Your task to perform on an android device: Add alienware aurora to the cart on walmart, then select checkout. Image 0: 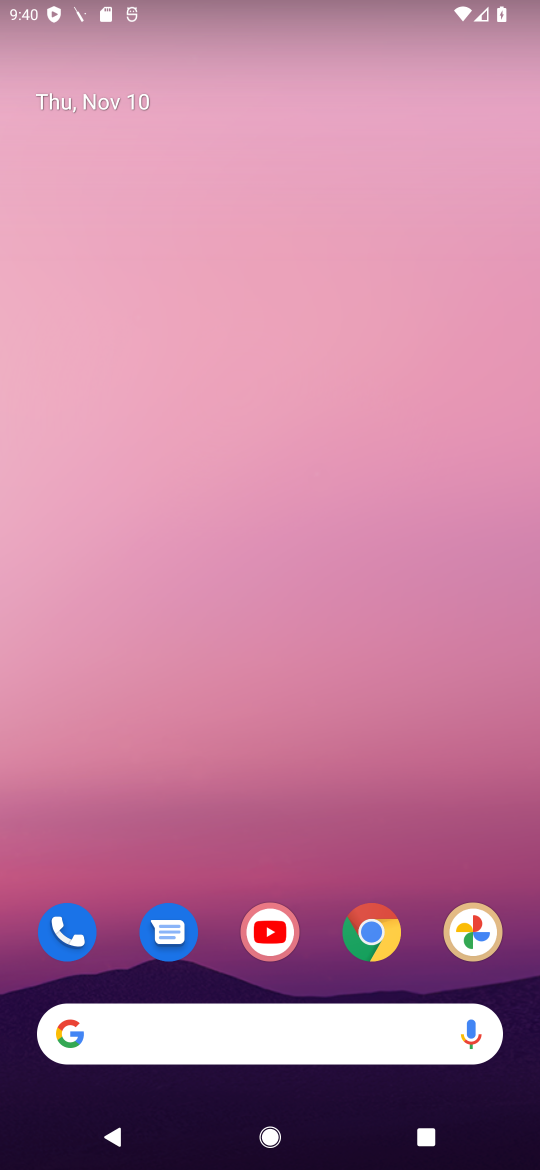
Step 0: click (379, 942)
Your task to perform on an android device: Add alienware aurora to the cart on walmart, then select checkout. Image 1: 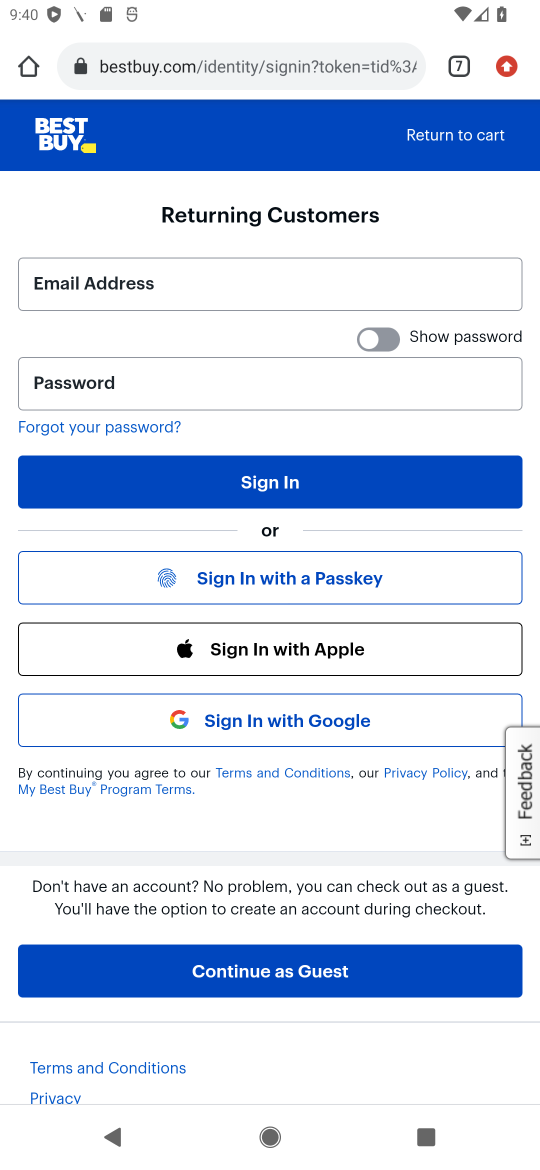
Step 1: click (468, 70)
Your task to perform on an android device: Add alienware aurora to the cart on walmart, then select checkout. Image 2: 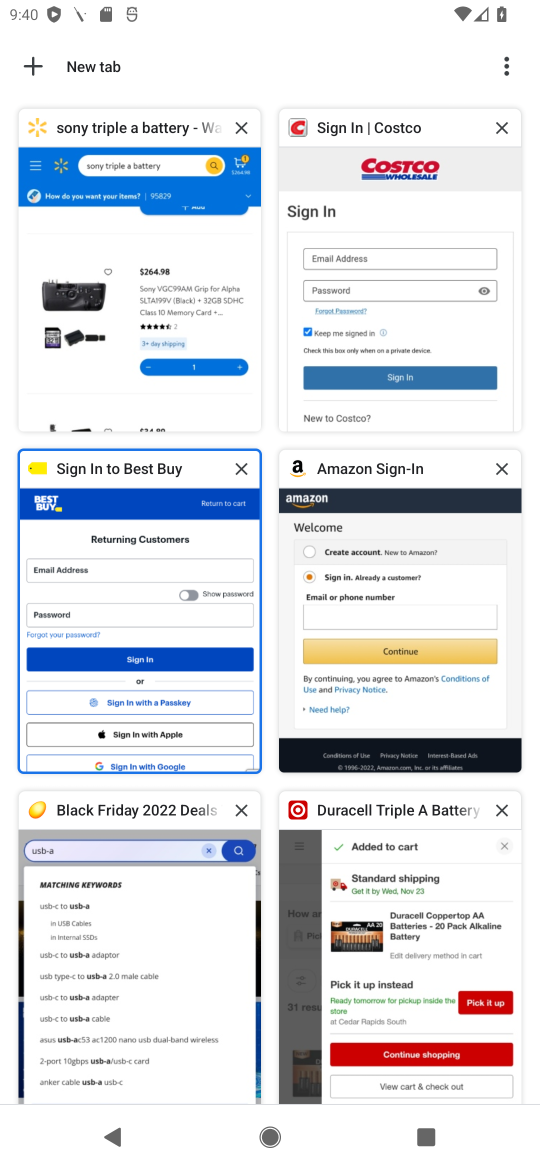
Step 2: click (150, 300)
Your task to perform on an android device: Add alienware aurora to the cart on walmart, then select checkout. Image 3: 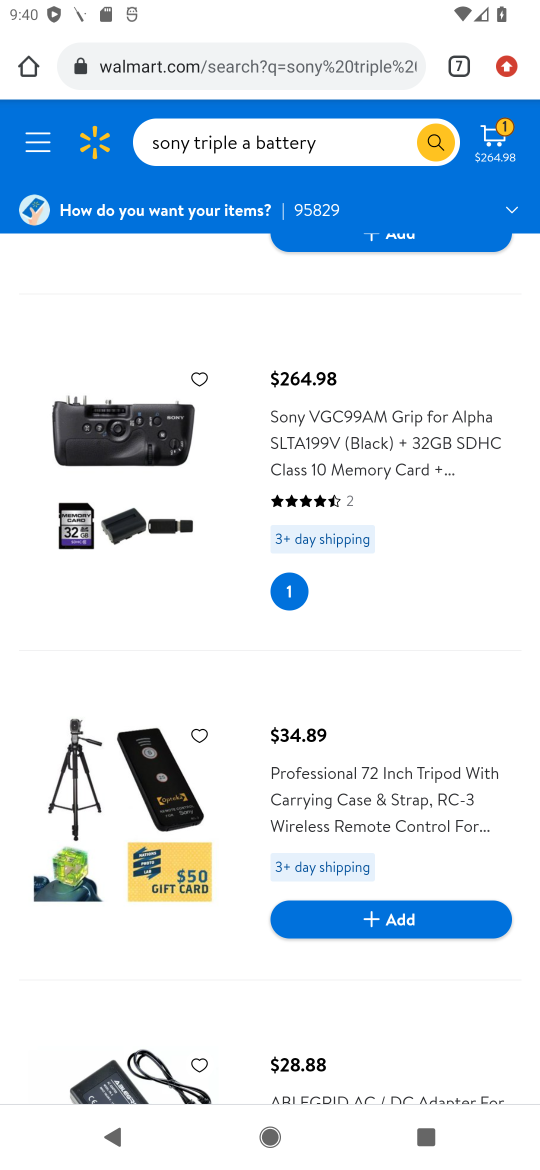
Step 3: click (322, 149)
Your task to perform on an android device: Add alienware aurora to the cart on walmart, then select checkout. Image 4: 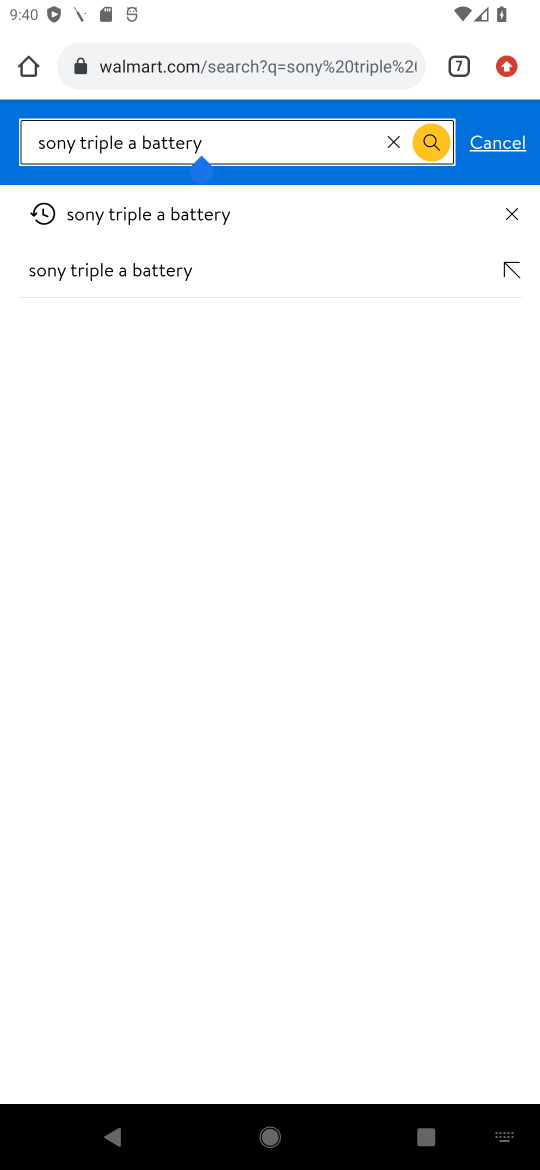
Step 4: click (396, 137)
Your task to perform on an android device: Add alienware aurora to the cart on walmart, then select checkout. Image 5: 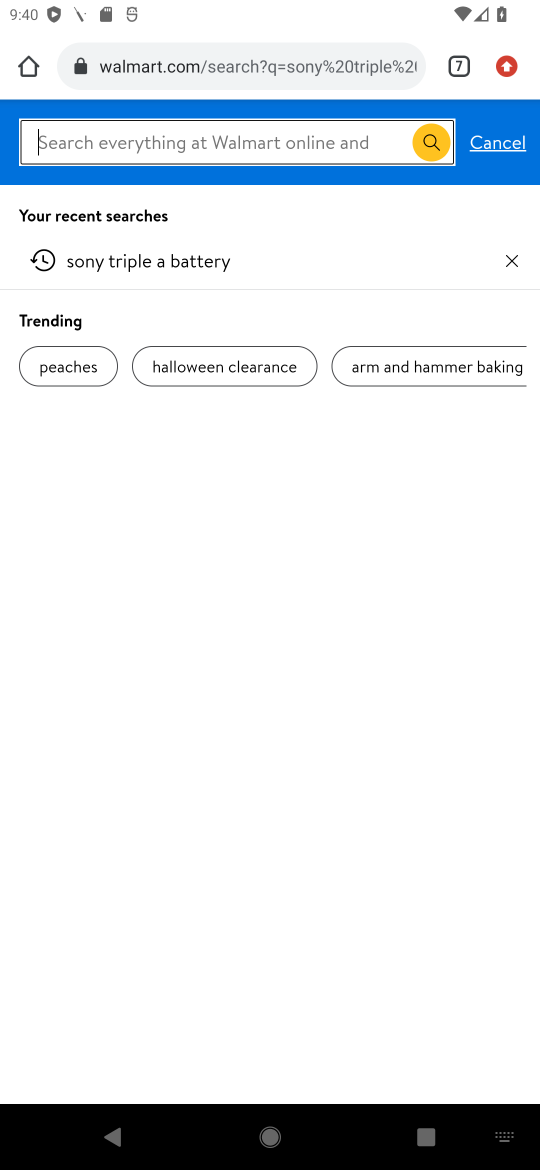
Step 5: type "alienware aurora "
Your task to perform on an android device: Add alienware aurora to the cart on walmart, then select checkout. Image 6: 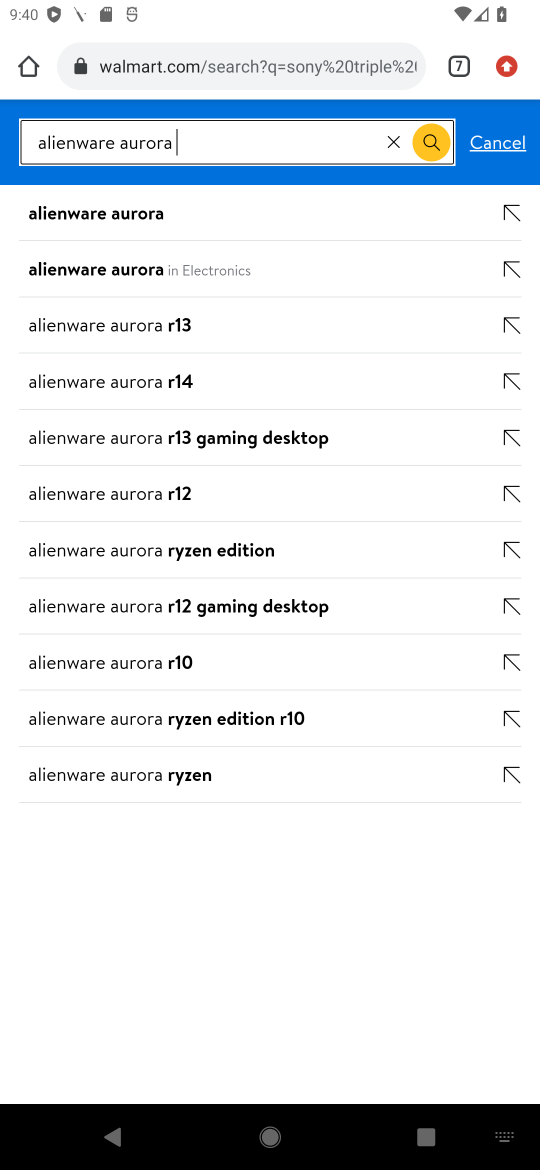
Step 6: click (140, 274)
Your task to perform on an android device: Add alienware aurora to the cart on walmart, then select checkout. Image 7: 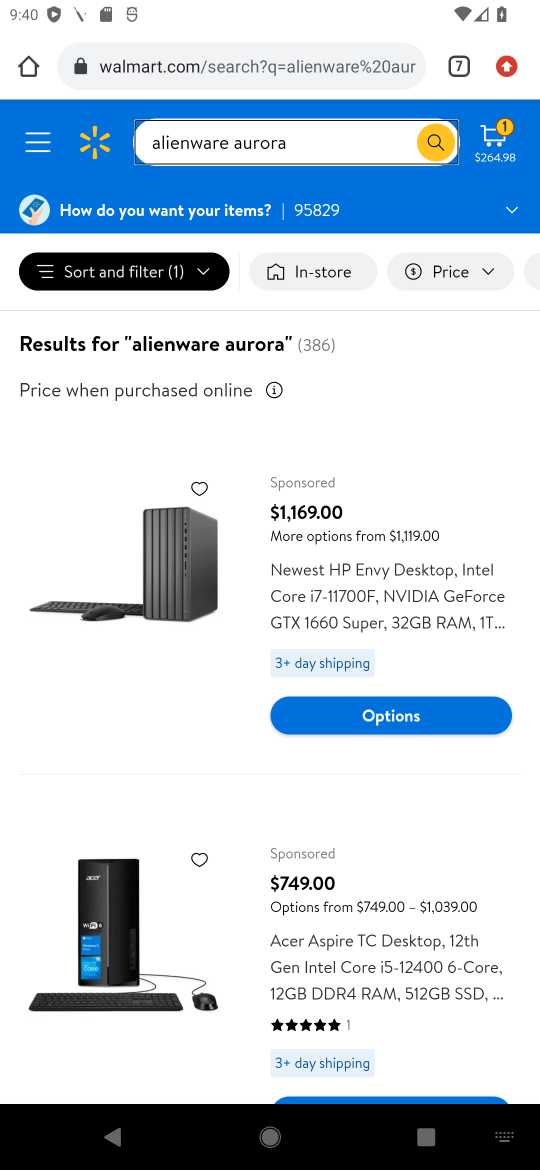
Step 7: drag from (408, 827) to (450, 234)
Your task to perform on an android device: Add alienware aurora to the cart on walmart, then select checkout. Image 8: 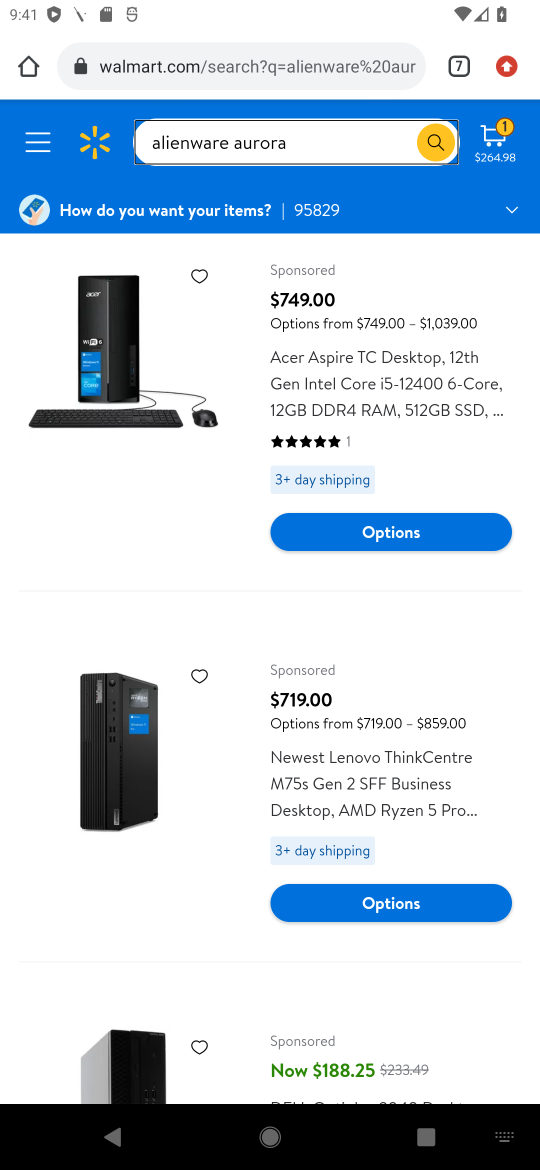
Step 8: drag from (103, 932) to (221, 326)
Your task to perform on an android device: Add alienware aurora to the cart on walmart, then select checkout. Image 9: 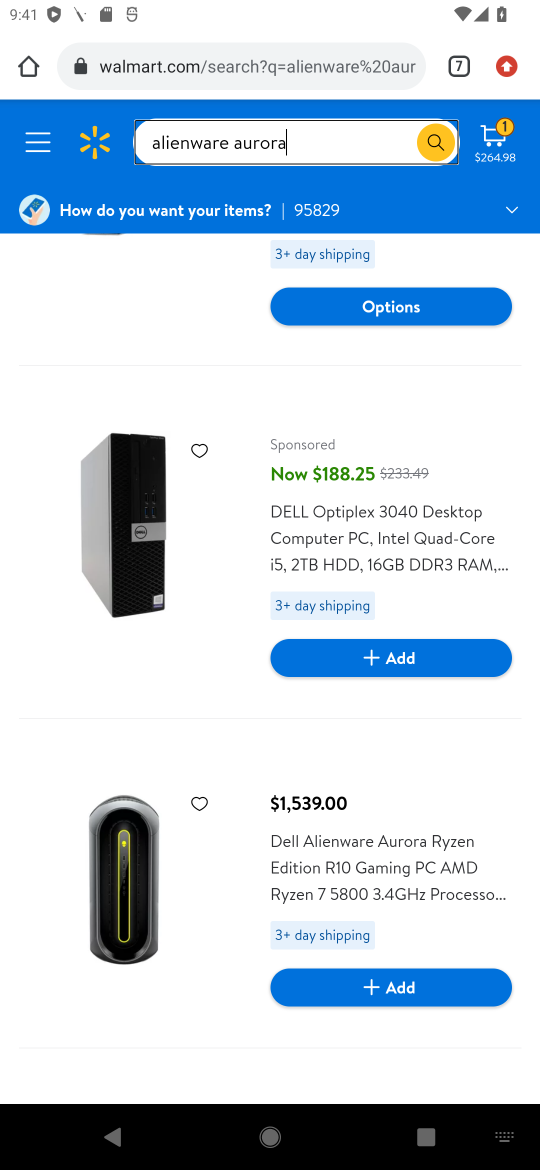
Step 9: click (387, 981)
Your task to perform on an android device: Add alienware aurora to the cart on walmart, then select checkout. Image 10: 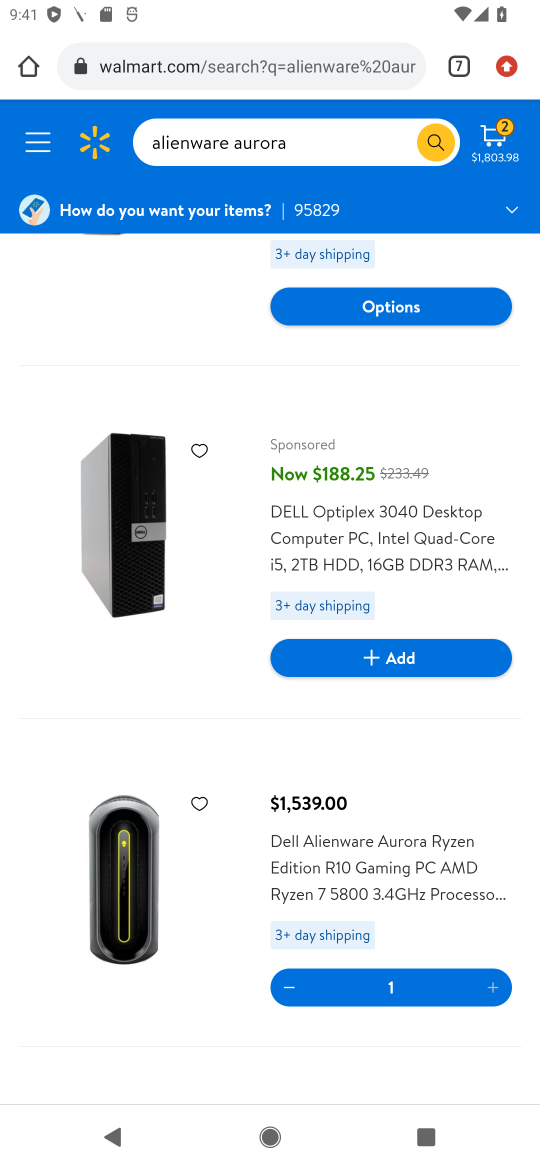
Step 10: click (511, 140)
Your task to perform on an android device: Add alienware aurora to the cart on walmart, then select checkout. Image 11: 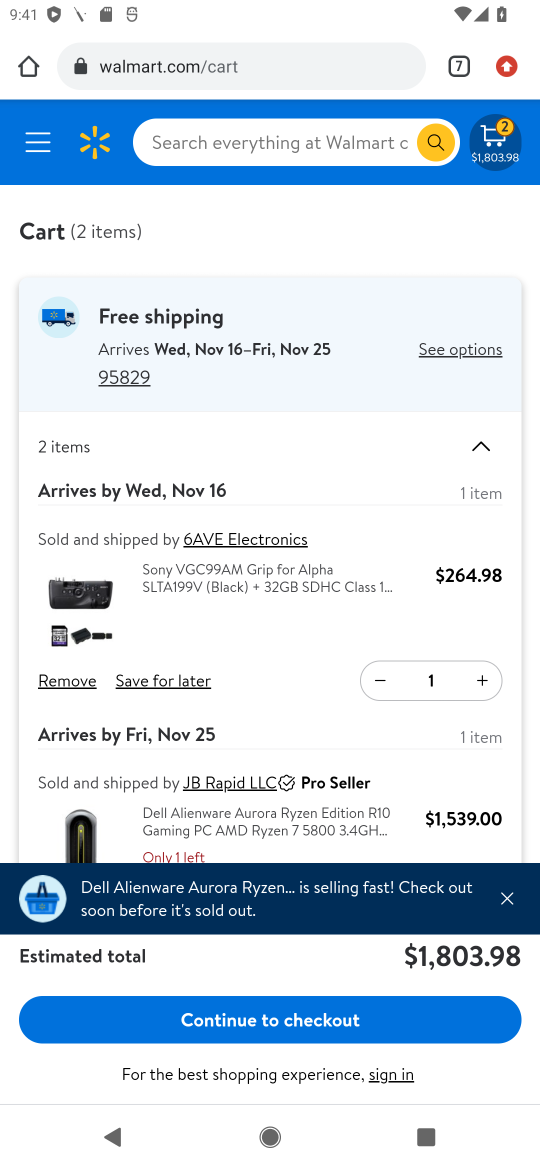
Step 11: click (305, 1024)
Your task to perform on an android device: Add alienware aurora to the cart on walmart, then select checkout. Image 12: 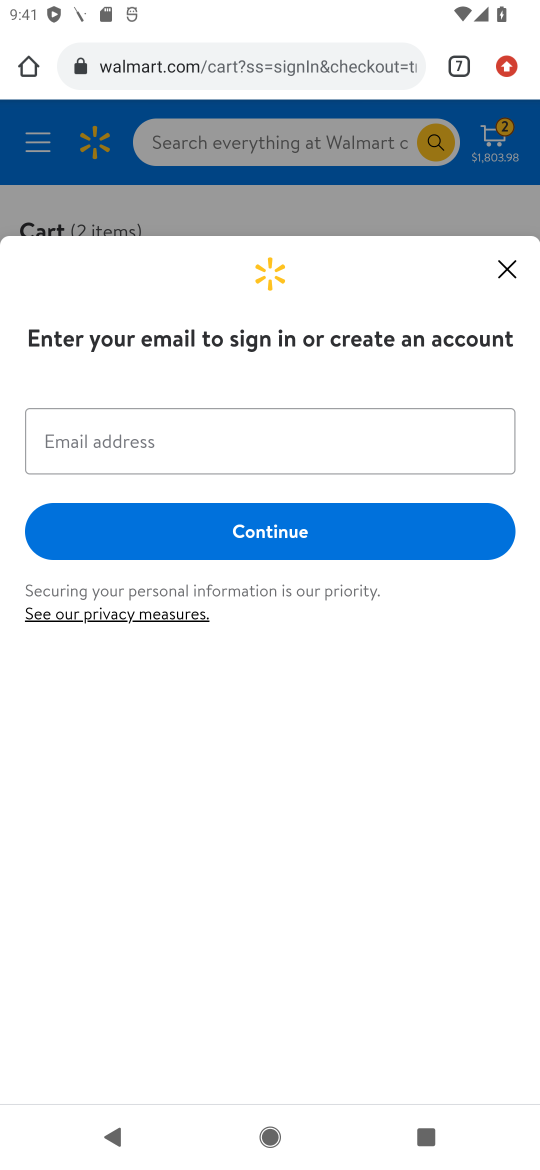
Step 12: click (501, 272)
Your task to perform on an android device: Add alienware aurora to the cart on walmart, then select checkout. Image 13: 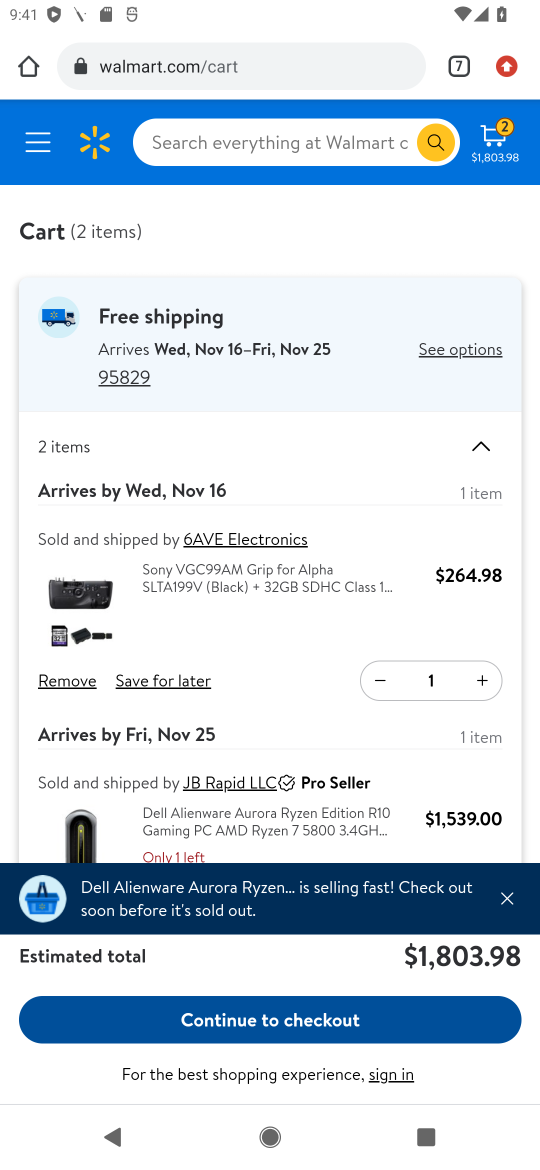
Step 13: click (338, 1024)
Your task to perform on an android device: Add alienware aurora to the cart on walmart, then select checkout. Image 14: 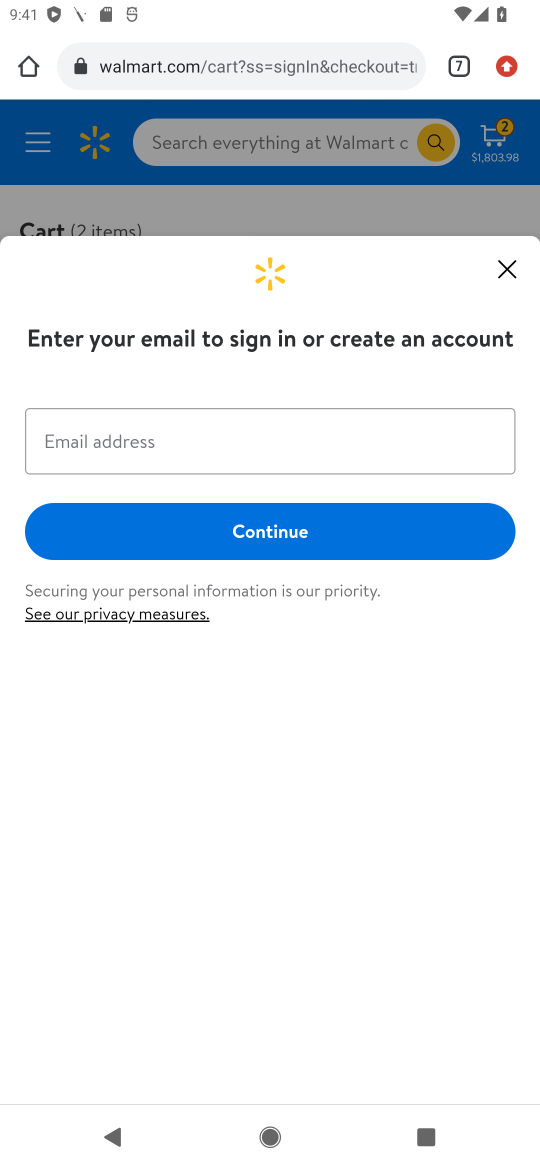
Step 14: click (508, 274)
Your task to perform on an android device: Add alienware aurora to the cart on walmart, then select checkout. Image 15: 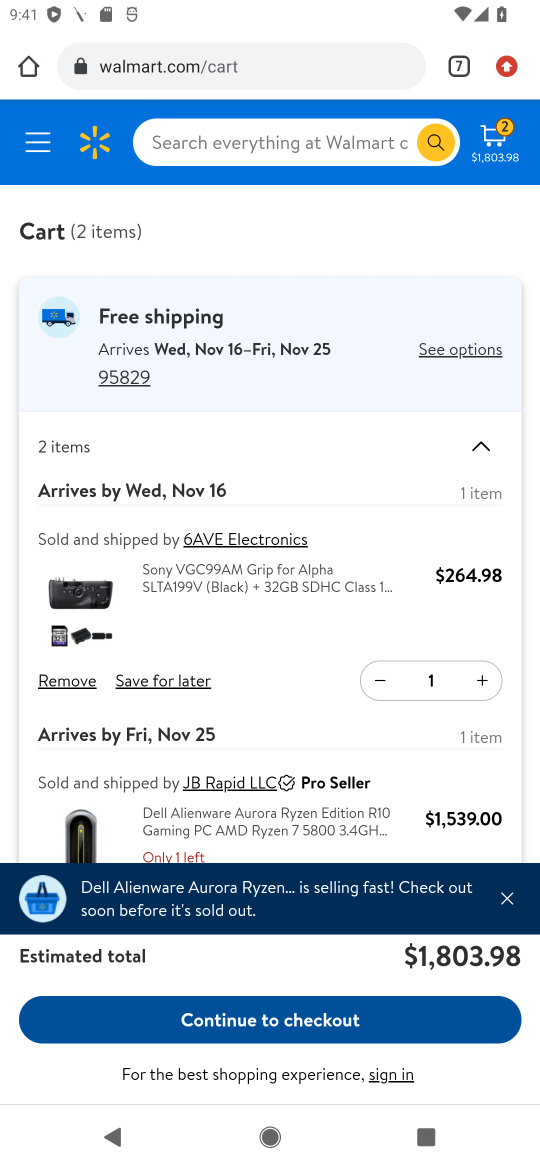
Step 15: task complete